Your task to perform on an android device: Open ESPN.com Image 0: 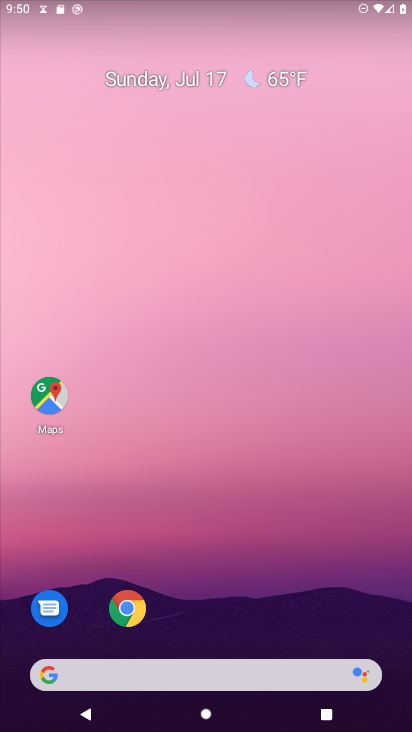
Step 0: click (129, 607)
Your task to perform on an android device: Open ESPN.com Image 1: 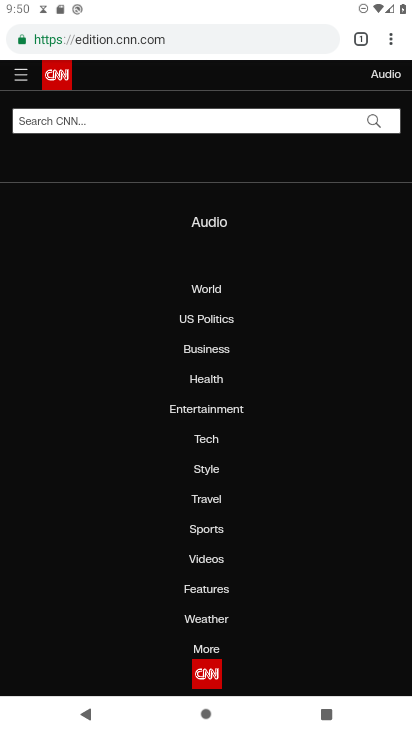
Step 1: click (252, 46)
Your task to perform on an android device: Open ESPN.com Image 2: 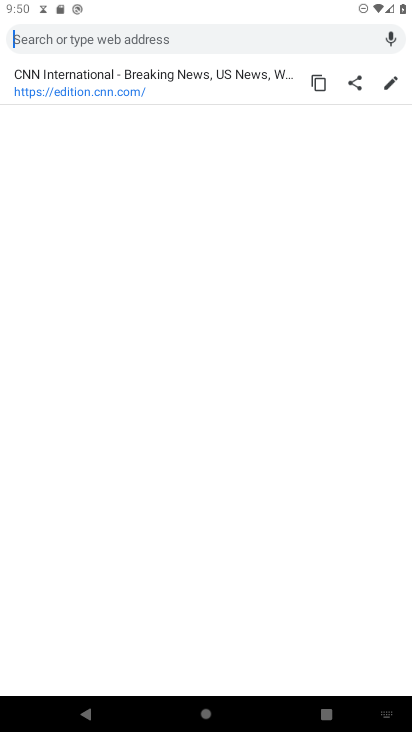
Step 2: type "ESPN.com"
Your task to perform on an android device: Open ESPN.com Image 3: 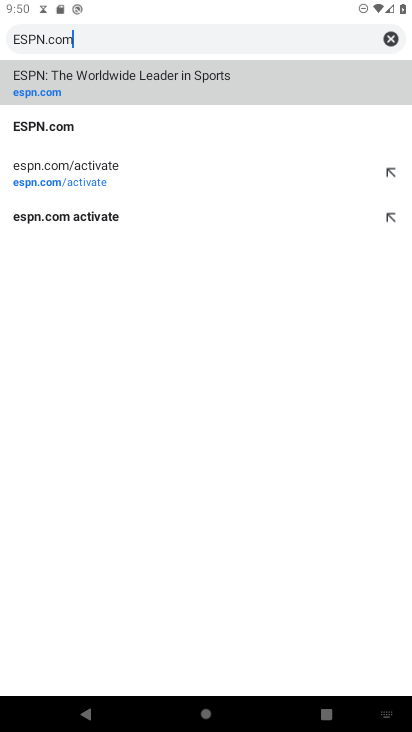
Step 3: click (55, 123)
Your task to perform on an android device: Open ESPN.com Image 4: 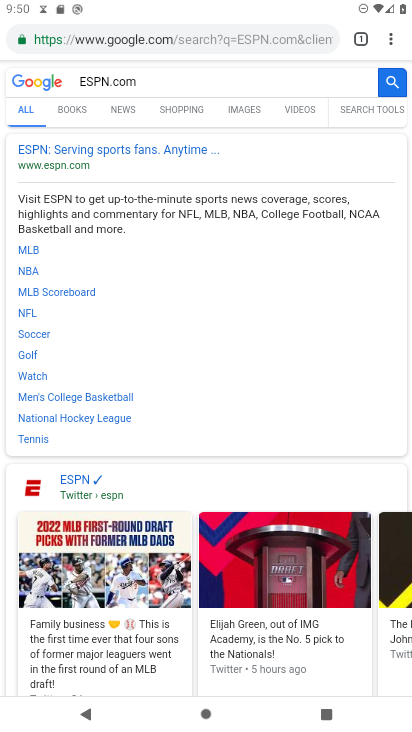
Step 4: click (69, 153)
Your task to perform on an android device: Open ESPN.com Image 5: 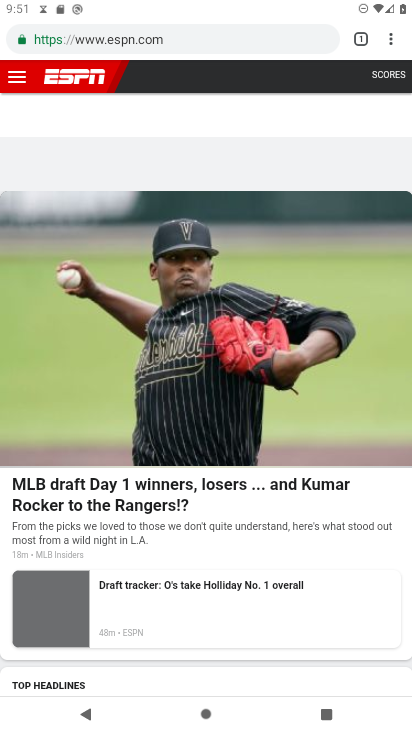
Step 5: task complete